Your task to perform on an android device: stop showing notifications on the lock screen Image 0: 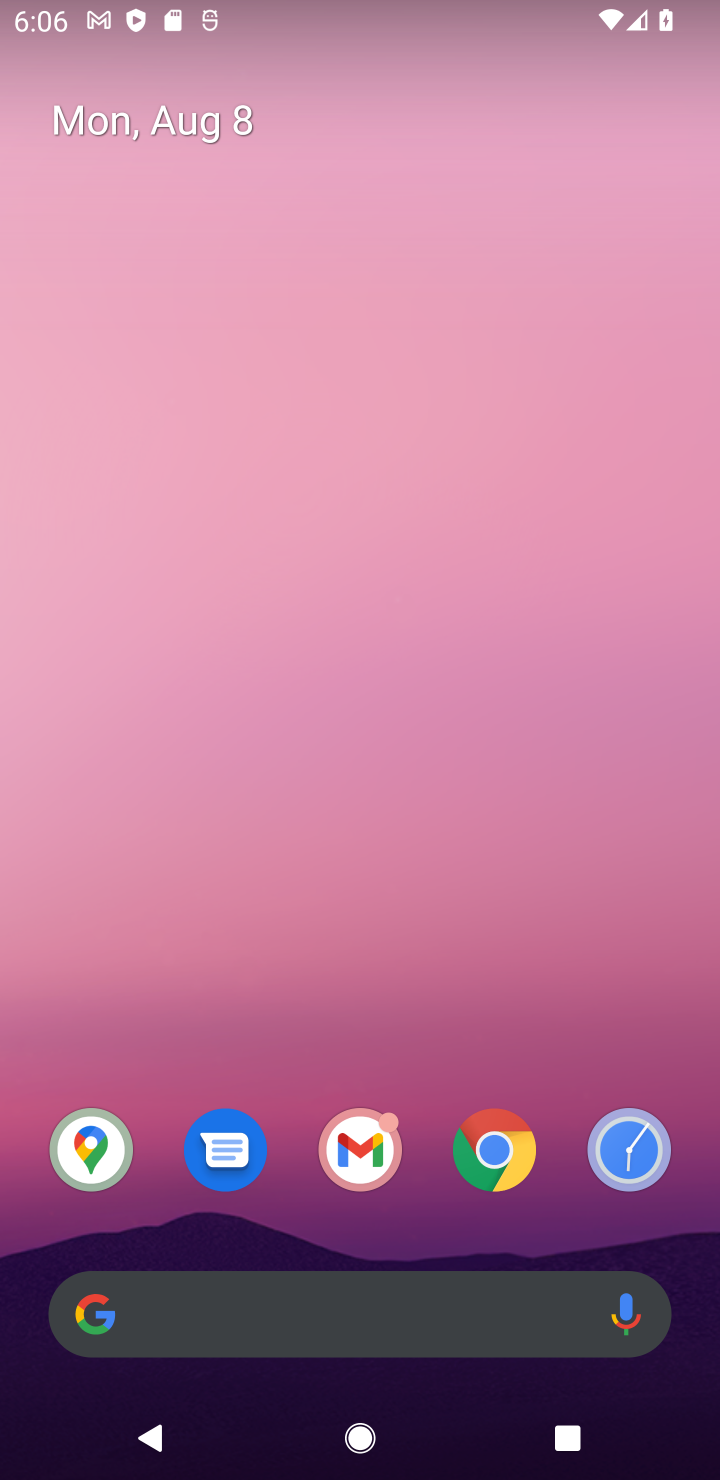
Step 0: drag from (425, 1212) to (261, 12)
Your task to perform on an android device: stop showing notifications on the lock screen Image 1: 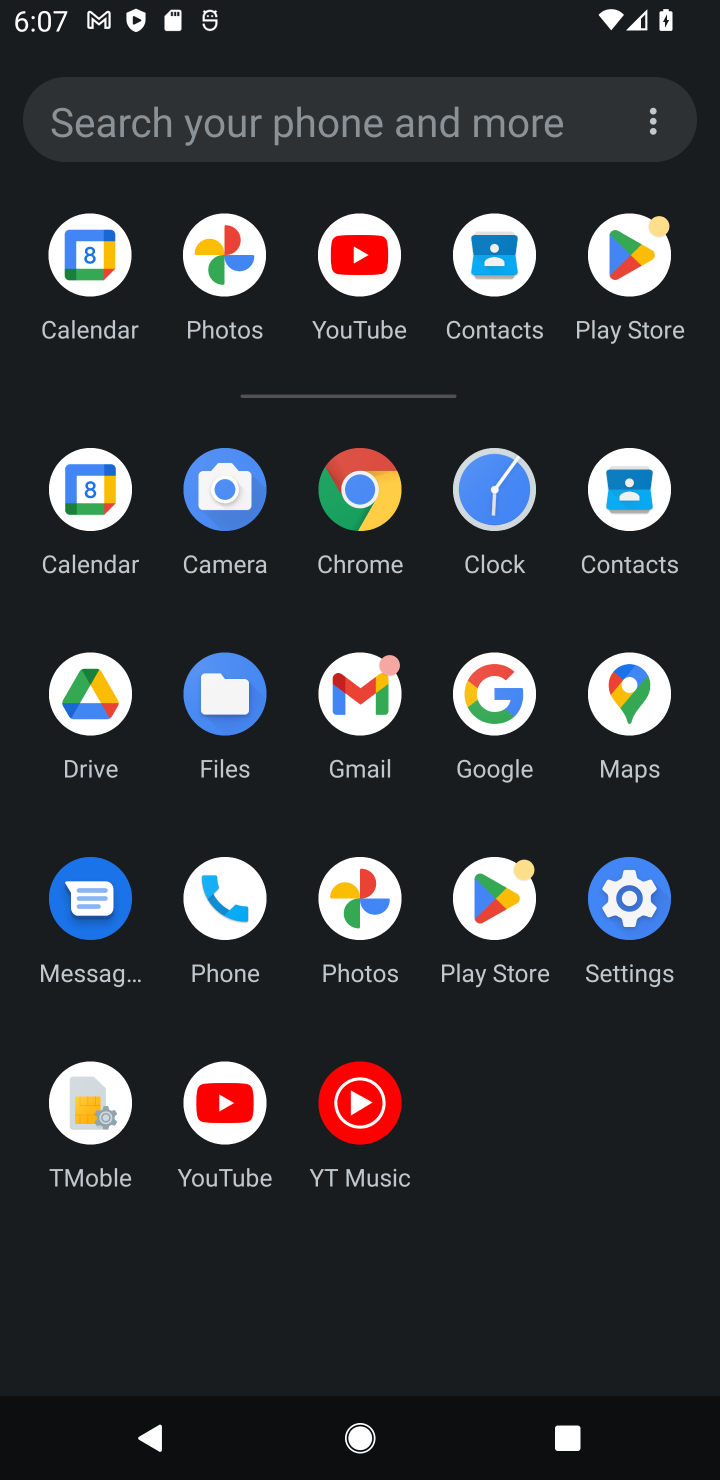
Step 1: click (656, 962)
Your task to perform on an android device: stop showing notifications on the lock screen Image 2: 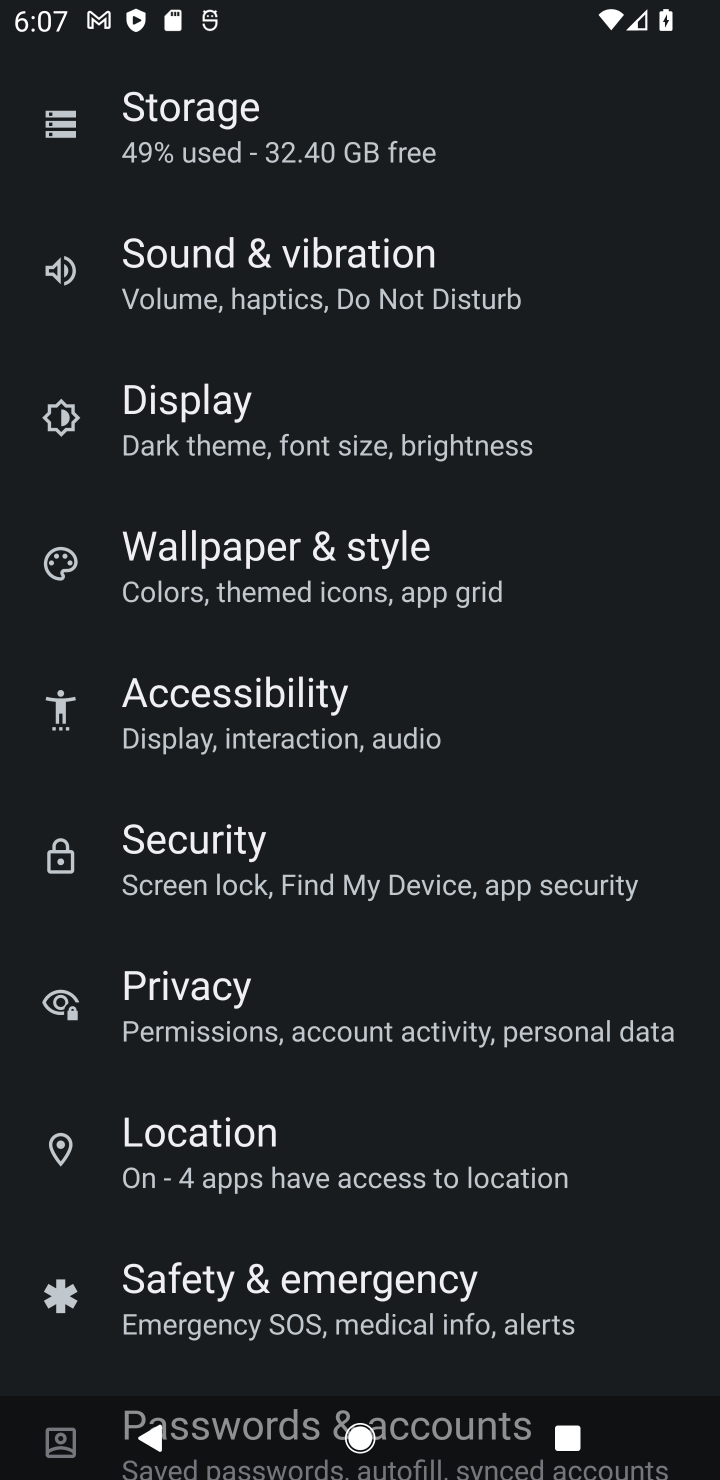
Step 2: task complete